Your task to perform on an android device: Is it going to rain this weekend? Image 0: 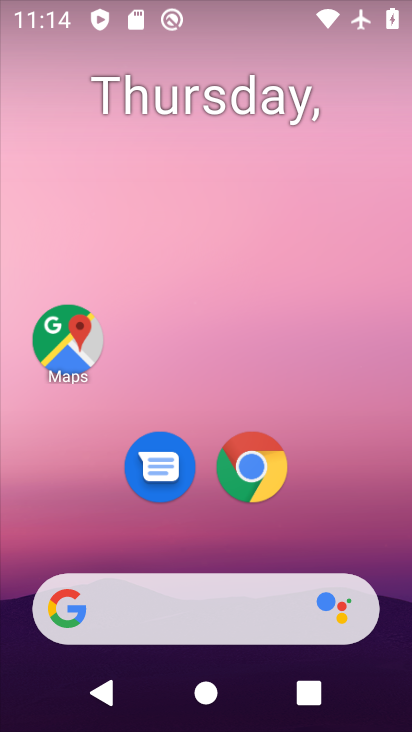
Step 0: click (97, 593)
Your task to perform on an android device: Is it going to rain this weekend? Image 1: 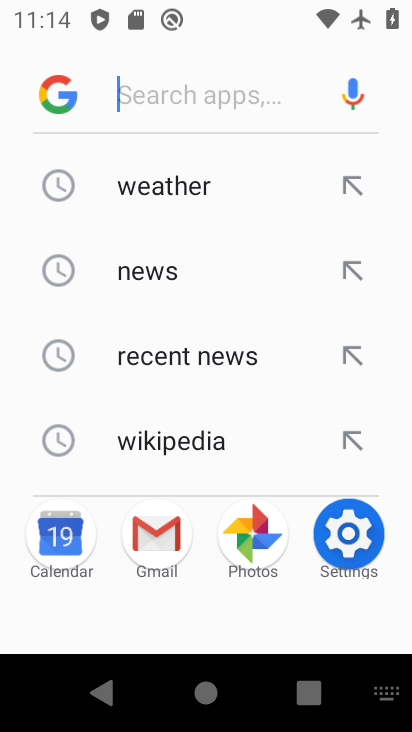
Step 1: click (158, 186)
Your task to perform on an android device: Is it going to rain this weekend? Image 2: 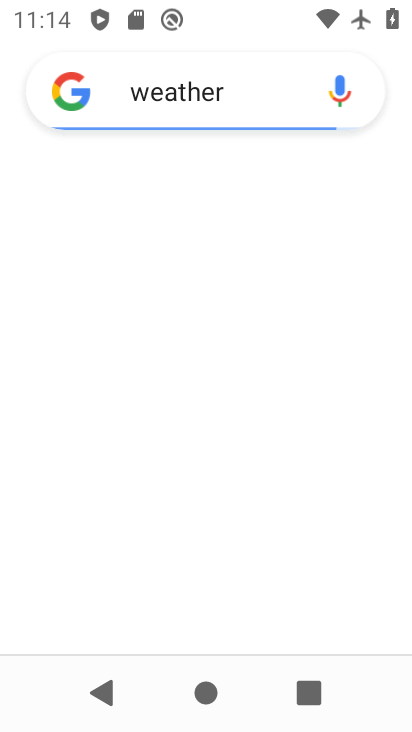
Step 2: click (152, 193)
Your task to perform on an android device: Is it going to rain this weekend? Image 3: 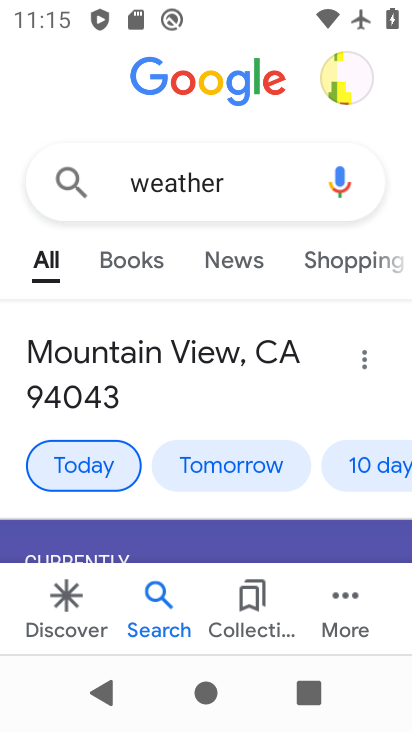
Step 3: click (353, 463)
Your task to perform on an android device: Is it going to rain this weekend? Image 4: 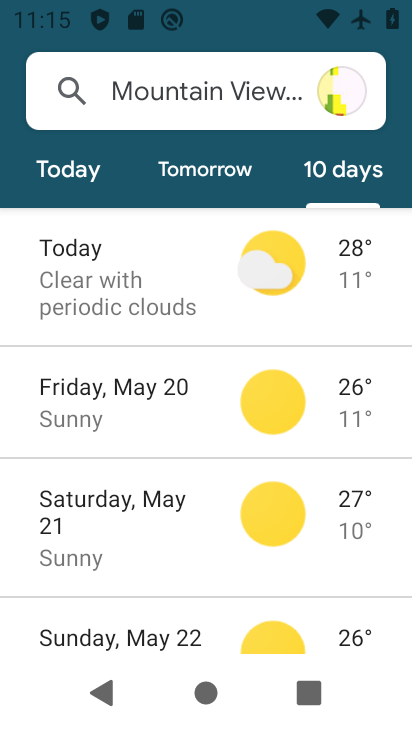
Step 4: task complete